Your task to perform on an android device: toggle wifi Image 0: 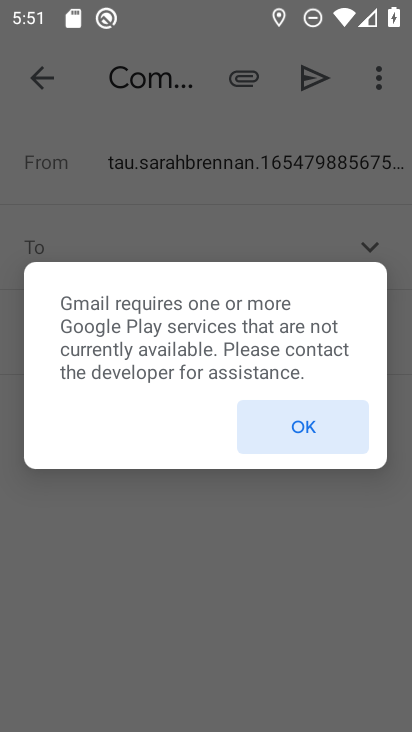
Step 0: press back button
Your task to perform on an android device: toggle wifi Image 1: 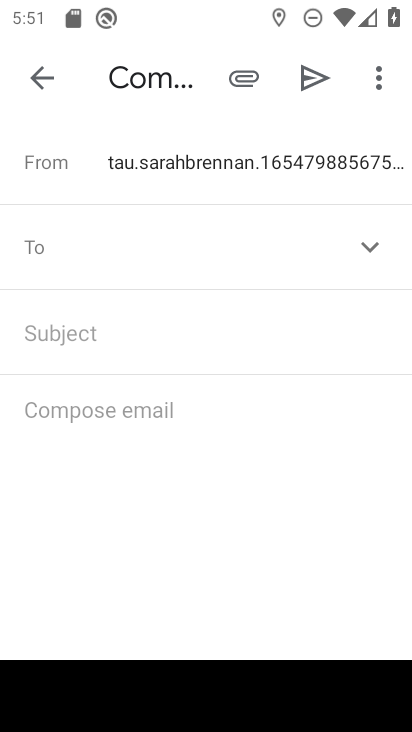
Step 1: press back button
Your task to perform on an android device: toggle wifi Image 2: 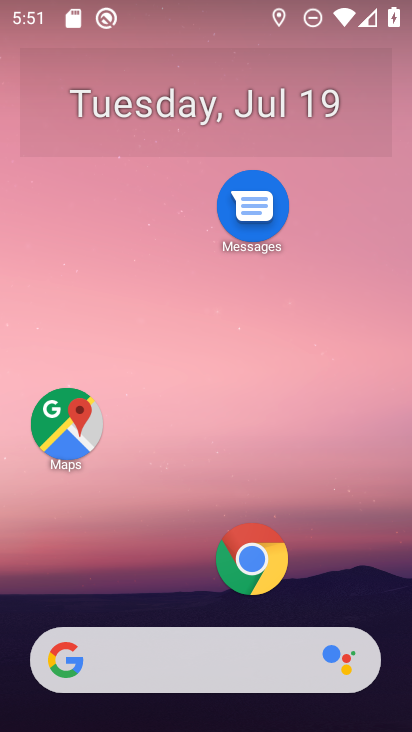
Step 2: drag from (183, 17) to (178, 640)
Your task to perform on an android device: toggle wifi Image 3: 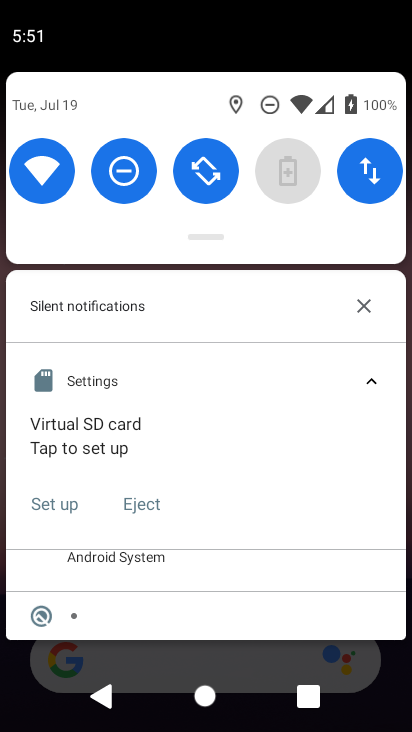
Step 3: click (47, 186)
Your task to perform on an android device: toggle wifi Image 4: 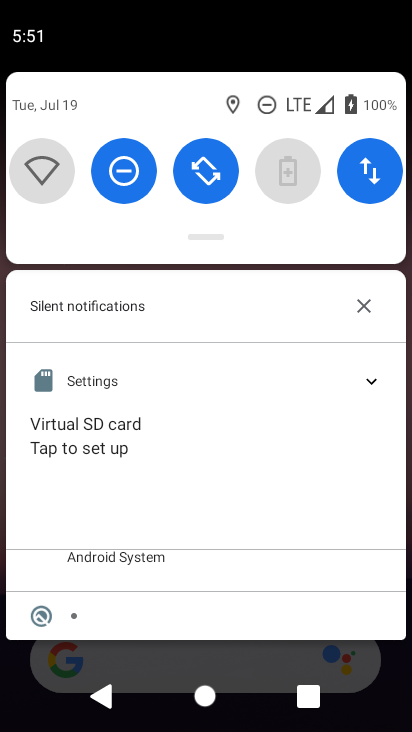
Step 4: task complete